Your task to perform on an android device: turn pop-ups on in chrome Image 0: 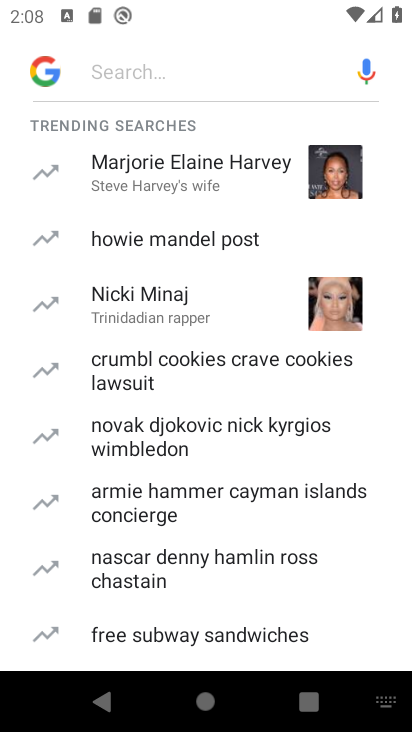
Step 0: press home button
Your task to perform on an android device: turn pop-ups on in chrome Image 1: 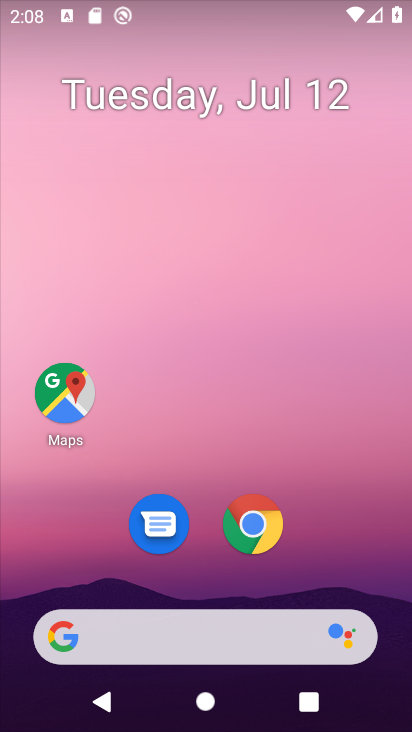
Step 1: click (271, 507)
Your task to perform on an android device: turn pop-ups on in chrome Image 2: 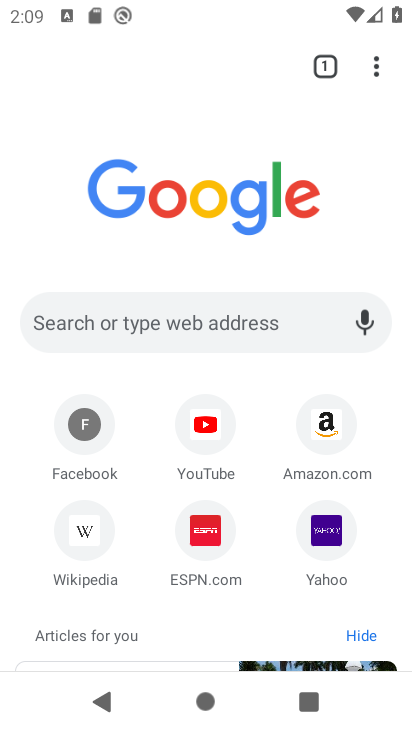
Step 2: click (376, 65)
Your task to perform on an android device: turn pop-ups on in chrome Image 3: 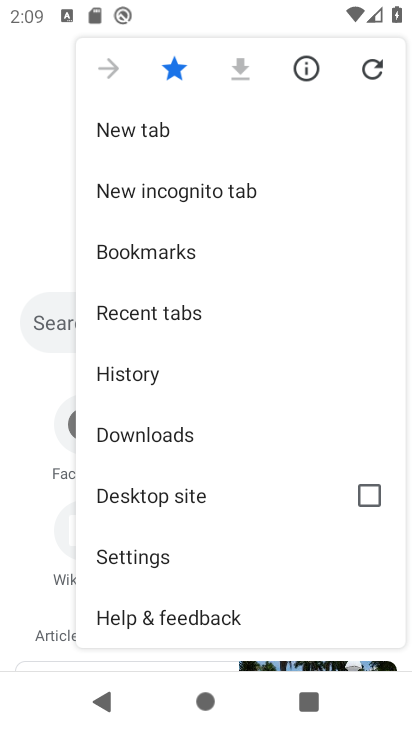
Step 3: click (165, 553)
Your task to perform on an android device: turn pop-ups on in chrome Image 4: 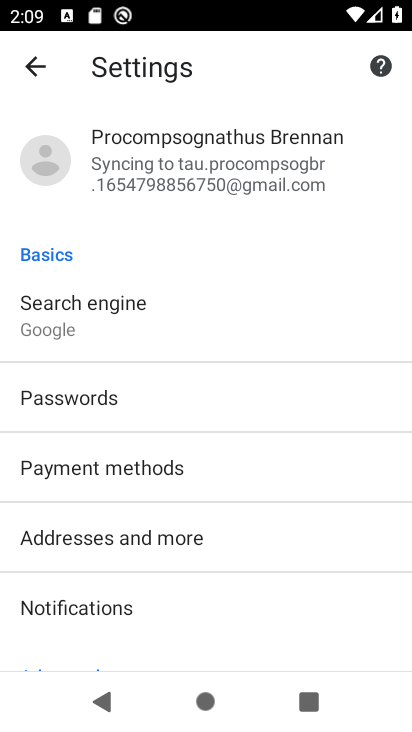
Step 4: drag from (235, 561) to (257, 303)
Your task to perform on an android device: turn pop-ups on in chrome Image 5: 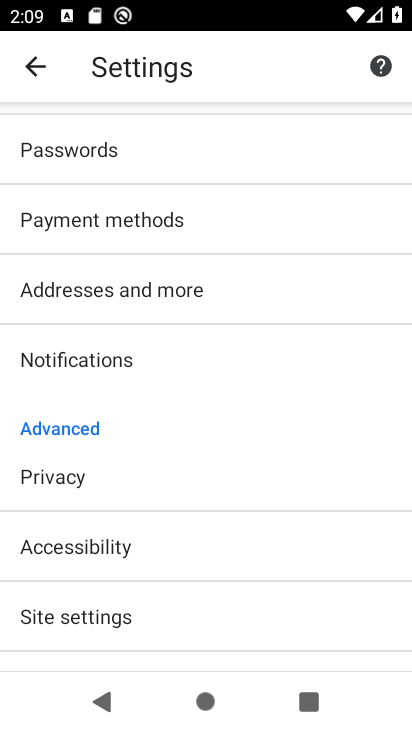
Step 5: click (139, 614)
Your task to perform on an android device: turn pop-ups on in chrome Image 6: 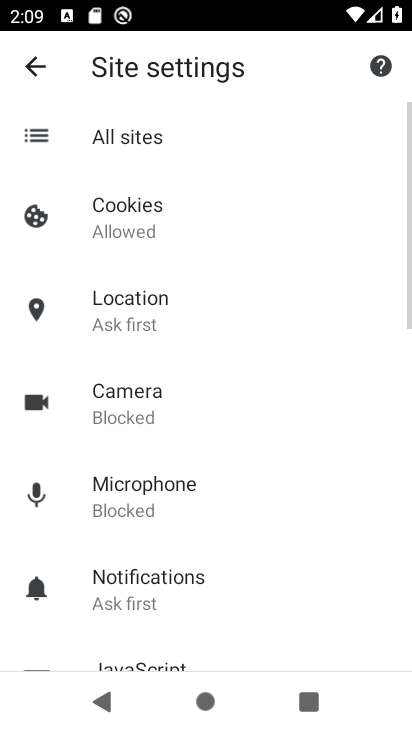
Step 6: drag from (237, 511) to (266, 253)
Your task to perform on an android device: turn pop-ups on in chrome Image 7: 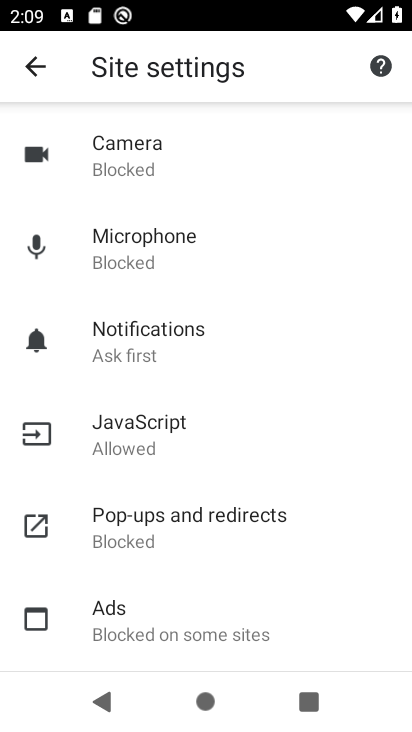
Step 7: click (217, 512)
Your task to perform on an android device: turn pop-ups on in chrome Image 8: 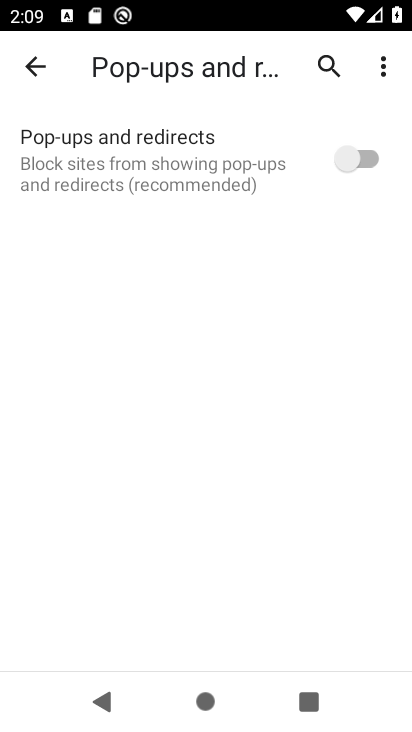
Step 8: click (362, 165)
Your task to perform on an android device: turn pop-ups on in chrome Image 9: 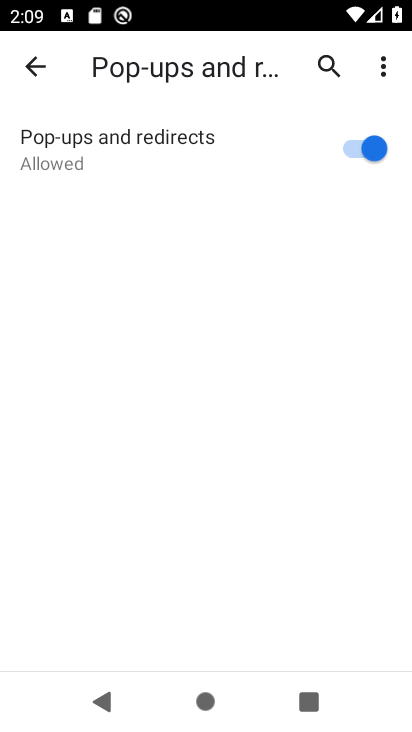
Step 9: task complete